Your task to perform on an android device: Go to sound settings Image 0: 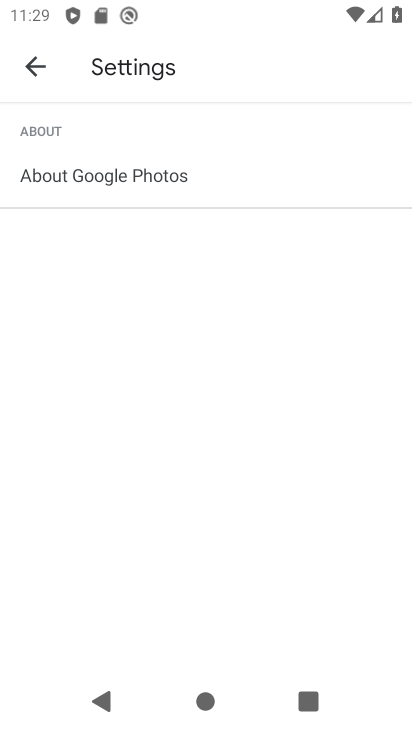
Step 0: press home button
Your task to perform on an android device: Go to sound settings Image 1: 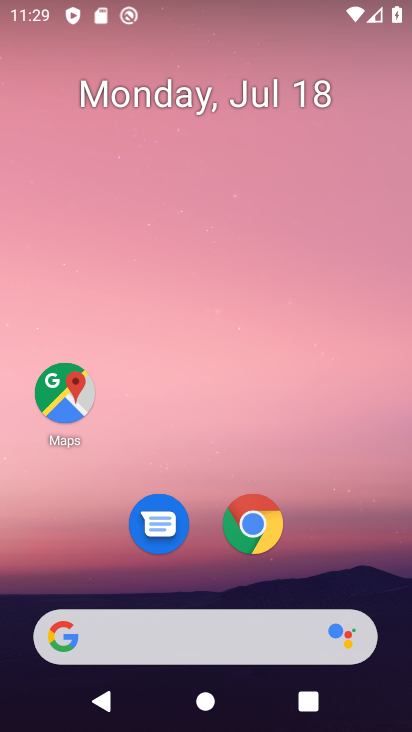
Step 1: drag from (330, 586) to (391, 13)
Your task to perform on an android device: Go to sound settings Image 2: 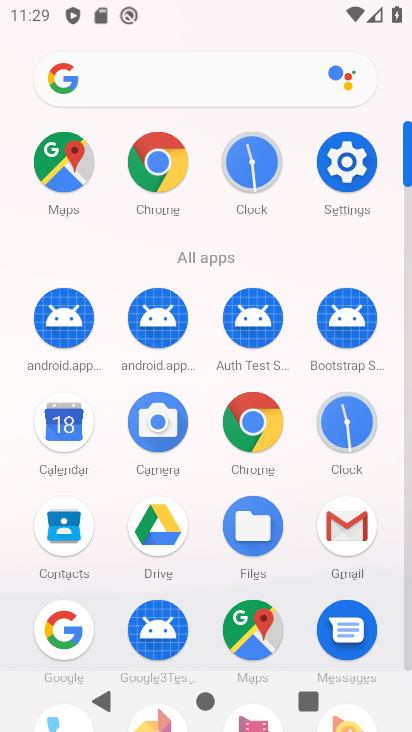
Step 2: click (348, 165)
Your task to perform on an android device: Go to sound settings Image 3: 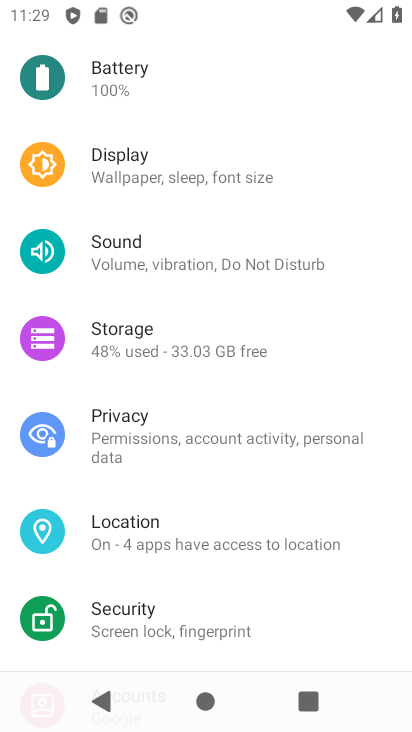
Step 3: click (261, 246)
Your task to perform on an android device: Go to sound settings Image 4: 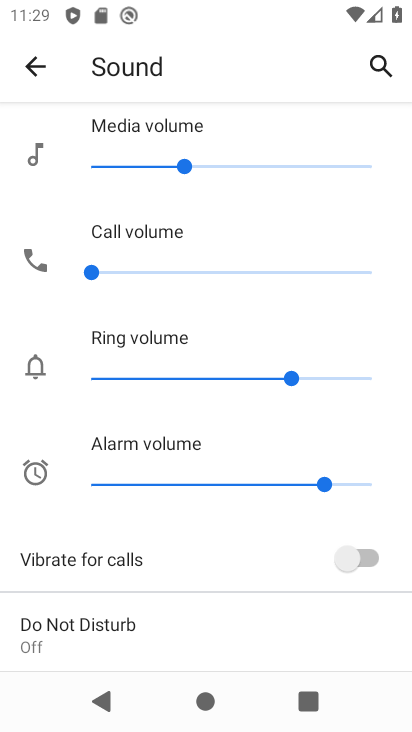
Step 4: task complete